Your task to perform on an android device: Toggle the flashlight Image 0: 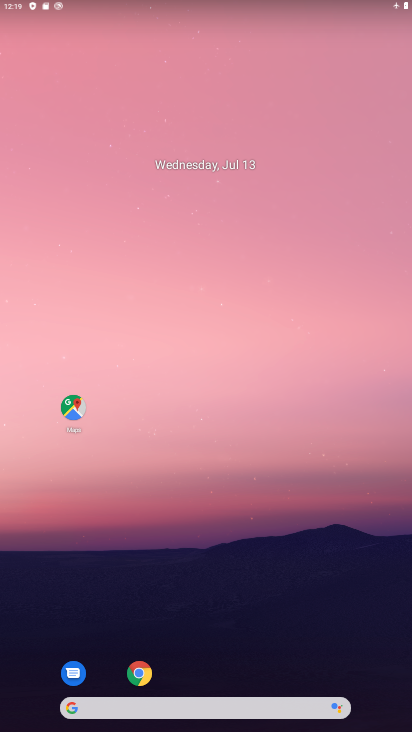
Step 0: drag from (268, 614) to (196, 48)
Your task to perform on an android device: Toggle the flashlight Image 1: 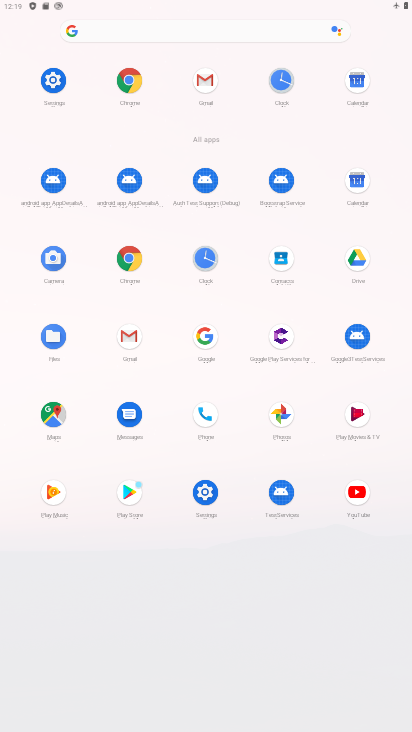
Step 1: click (75, 86)
Your task to perform on an android device: Toggle the flashlight Image 2: 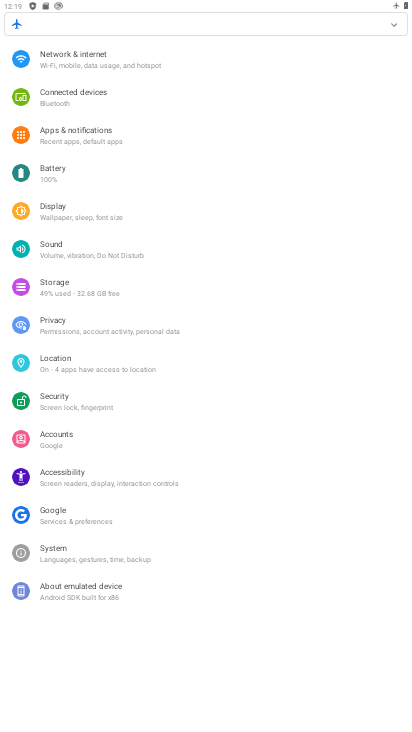
Step 2: click (104, 234)
Your task to perform on an android device: Toggle the flashlight Image 3: 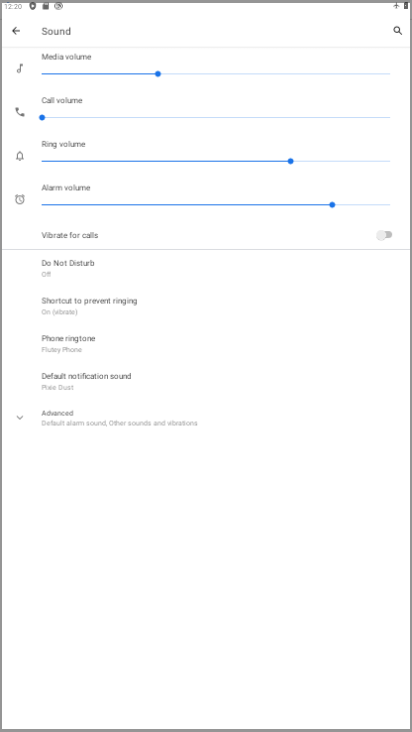
Step 3: task complete